Your task to perform on an android device: Install the Spotify app Image 0: 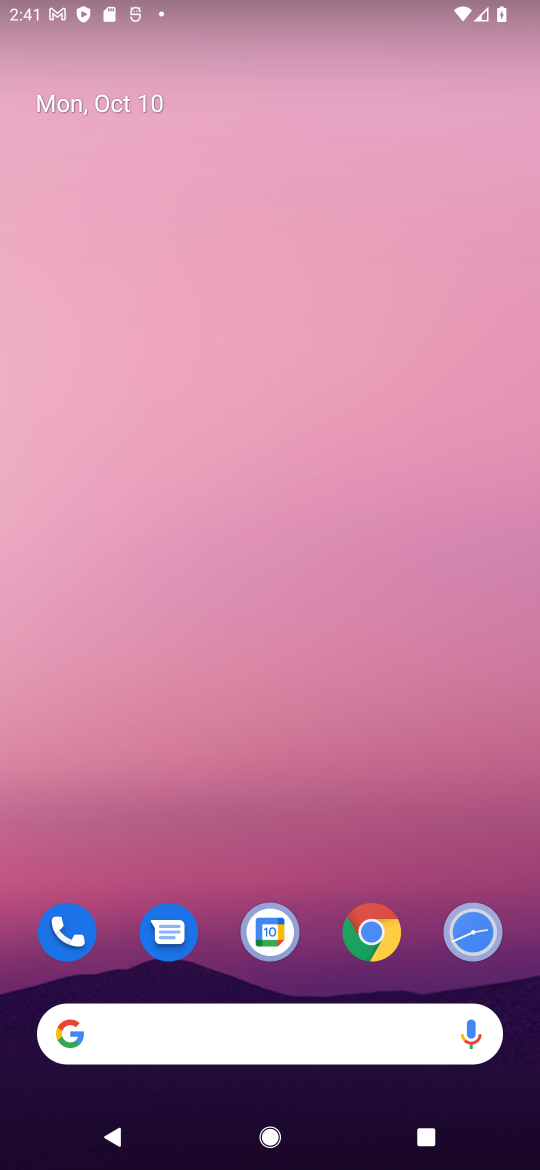
Step 0: press home button
Your task to perform on an android device: Install the Spotify app Image 1: 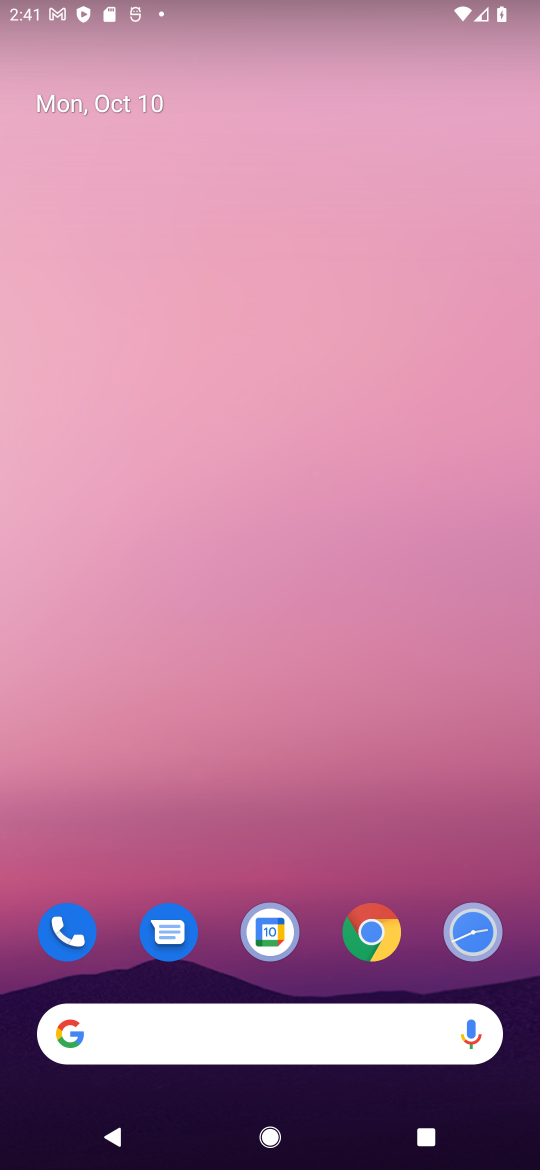
Step 1: drag from (513, 846) to (493, 100)
Your task to perform on an android device: Install the Spotify app Image 2: 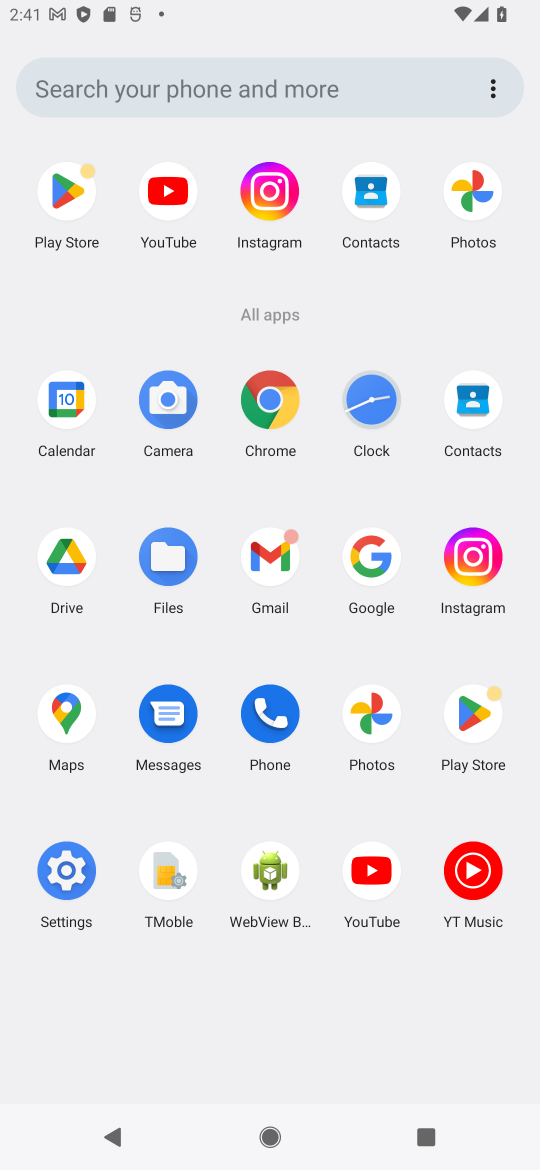
Step 2: click (480, 722)
Your task to perform on an android device: Install the Spotify app Image 3: 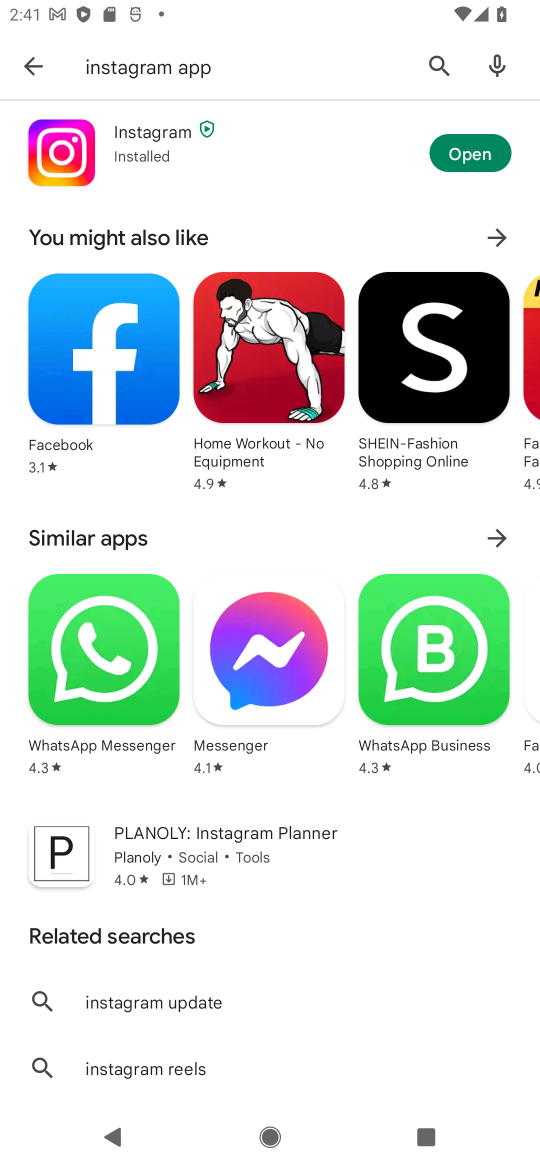
Step 3: press back button
Your task to perform on an android device: Install the Spotify app Image 4: 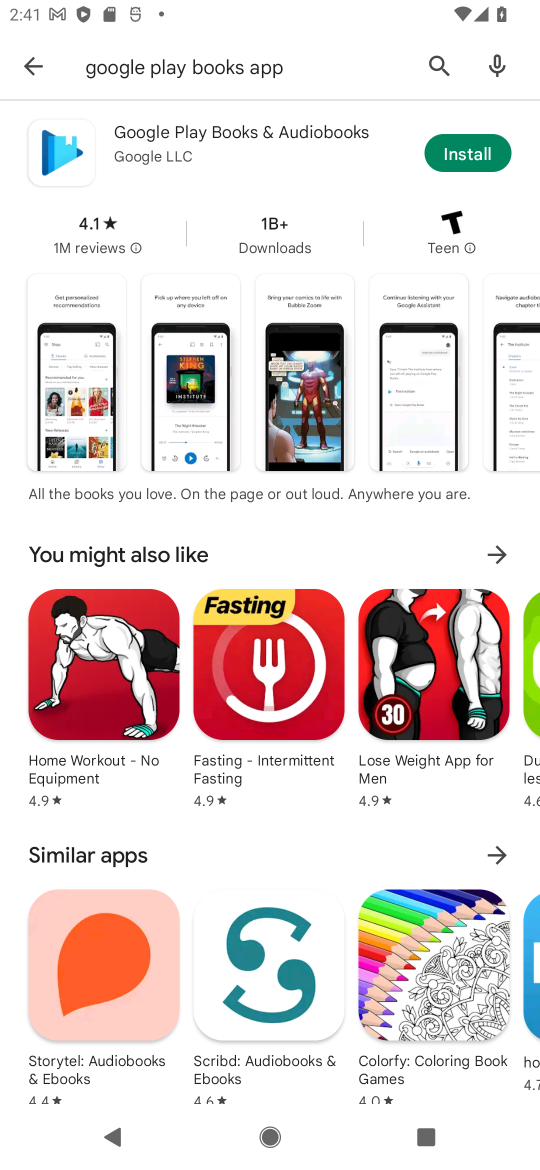
Step 4: press back button
Your task to perform on an android device: Install the Spotify app Image 5: 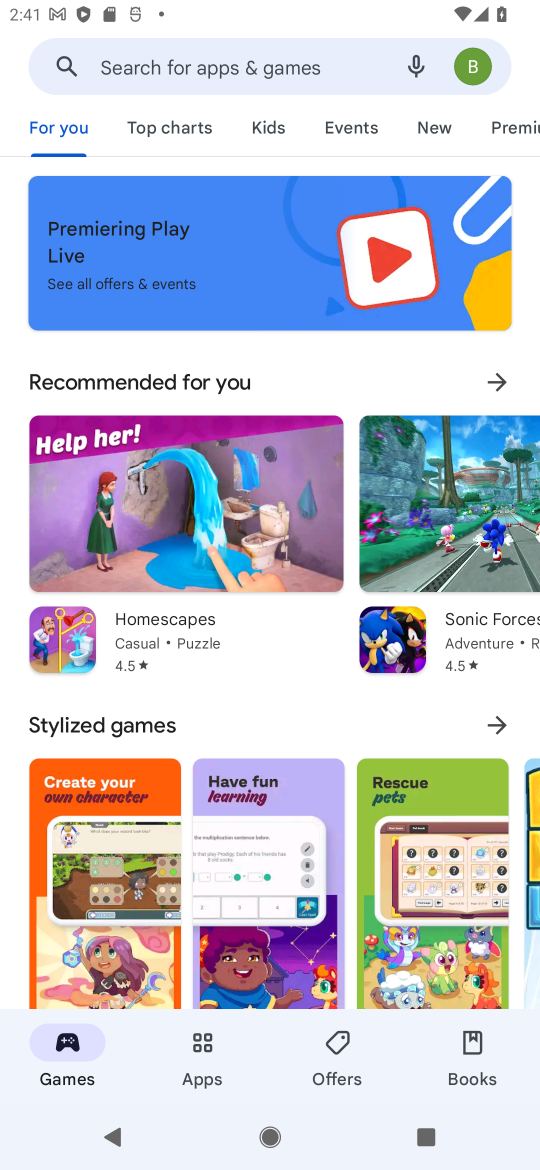
Step 5: click (255, 48)
Your task to perform on an android device: Install the Spotify app Image 6: 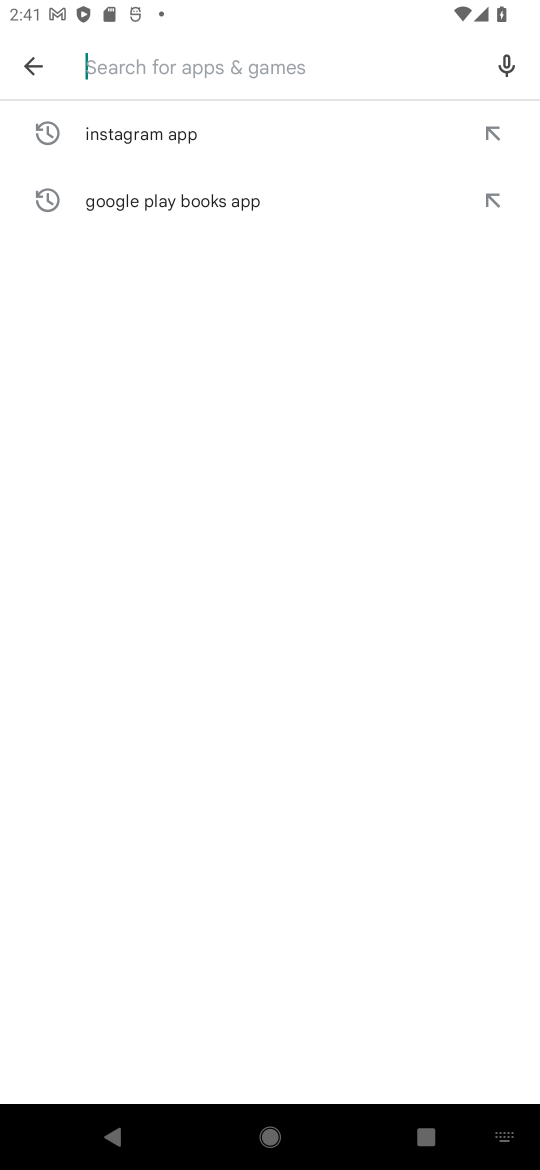
Step 6: type "spotifty app"
Your task to perform on an android device: Install the Spotify app Image 7: 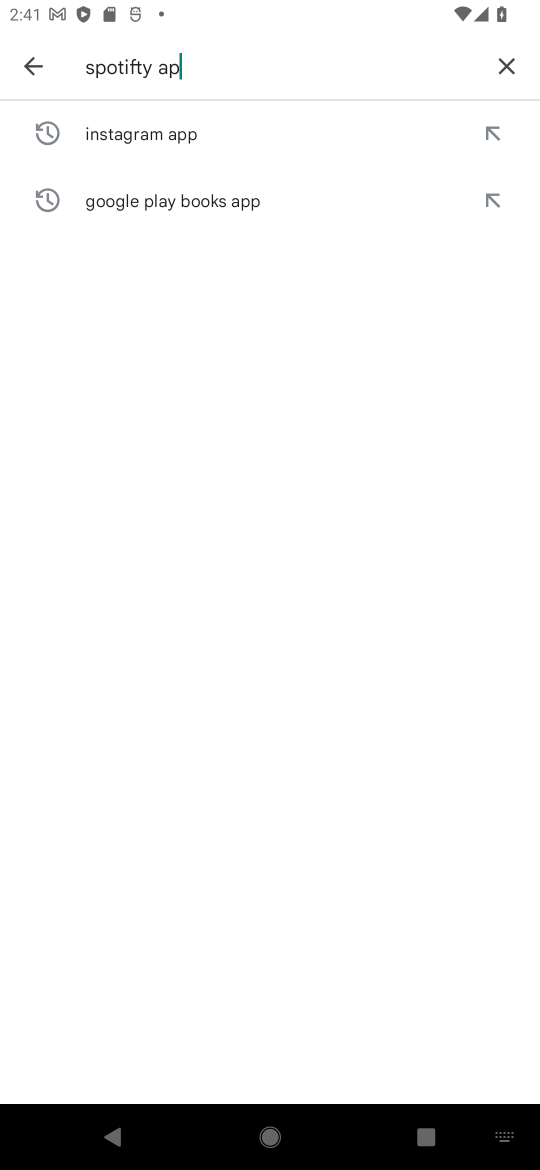
Step 7: press enter
Your task to perform on an android device: Install the Spotify app Image 8: 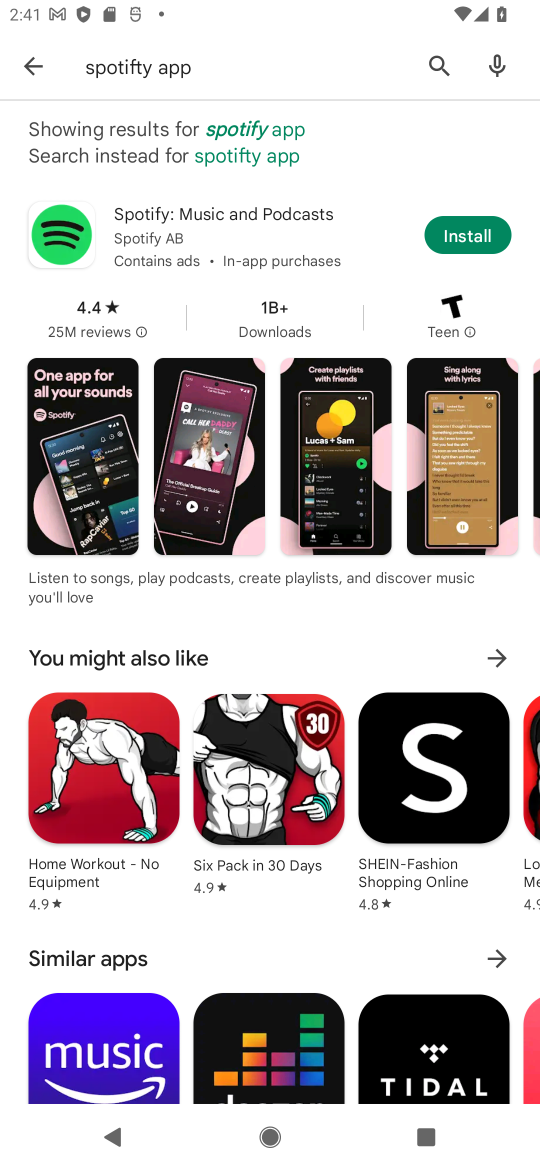
Step 8: click (474, 235)
Your task to perform on an android device: Install the Spotify app Image 9: 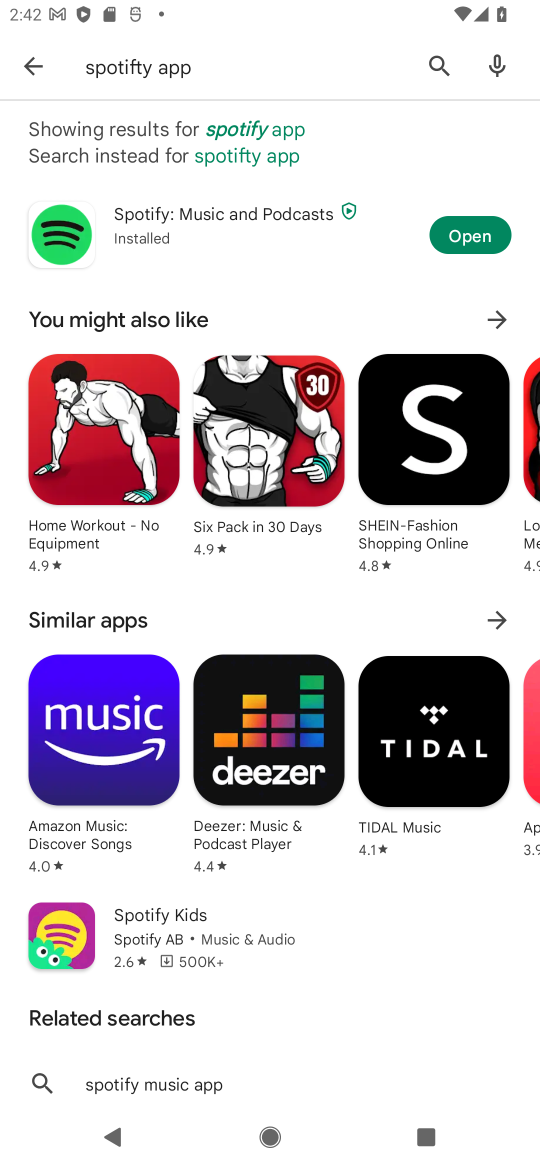
Step 9: task complete